Your task to perform on an android device: Open settings on Google Maps Image 0: 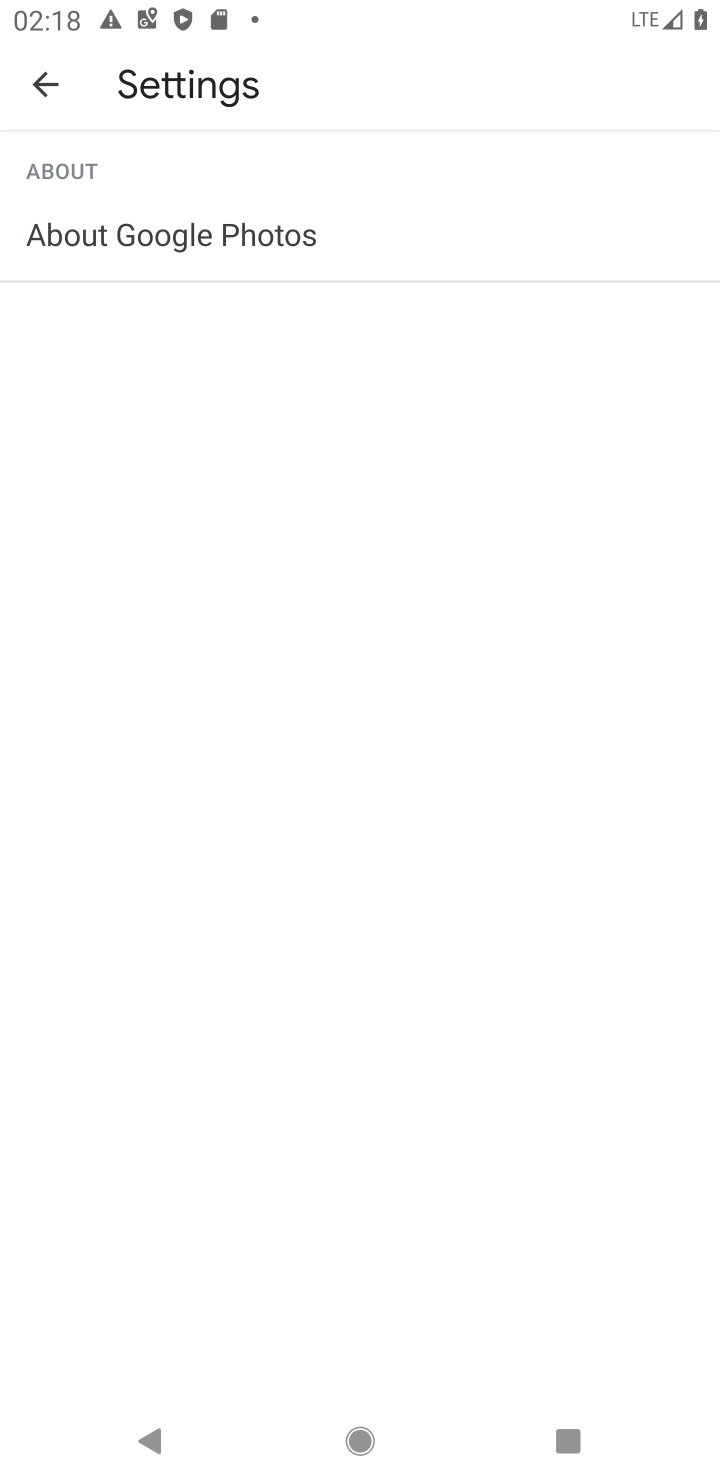
Step 0: click (354, 1437)
Your task to perform on an android device: Open settings on Google Maps Image 1: 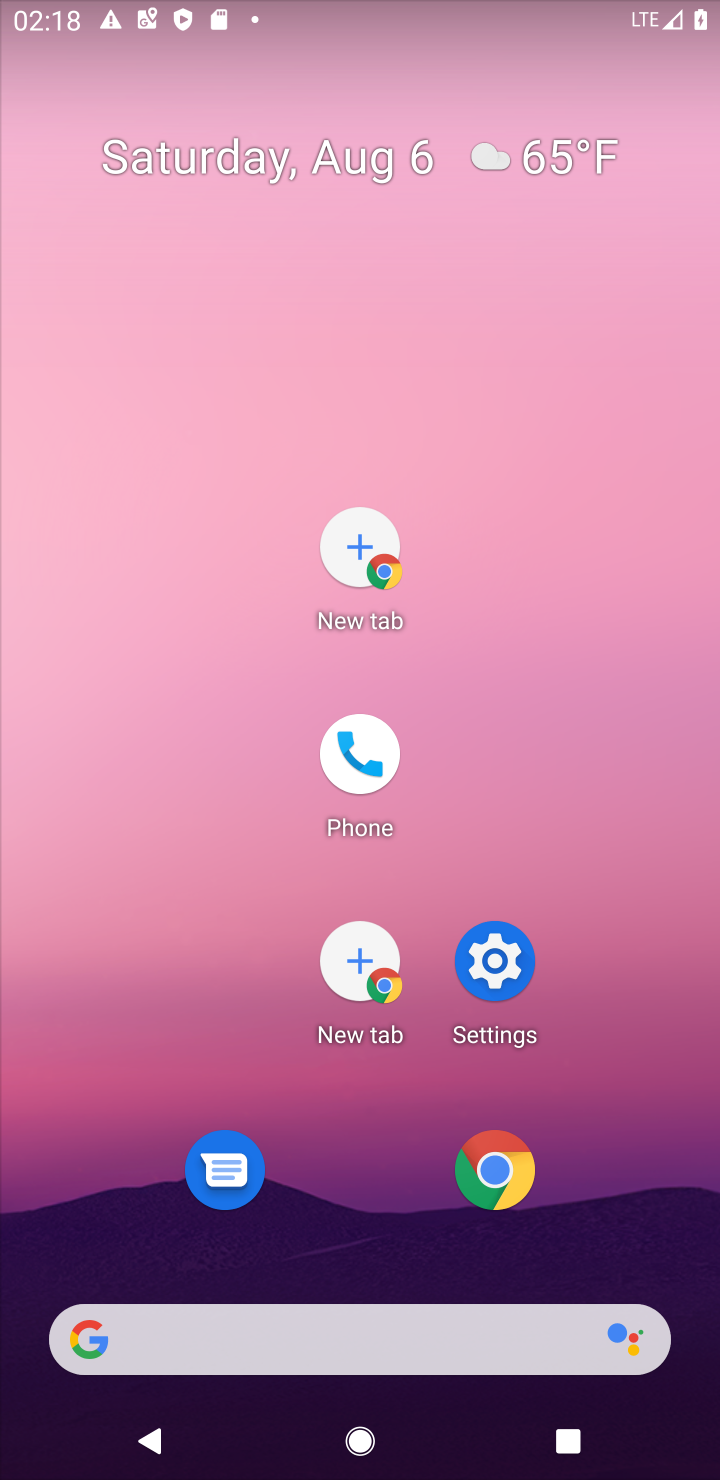
Step 1: drag from (383, 1274) to (361, 765)
Your task to perform on an android device: Open settings on Google Maps Image 2: 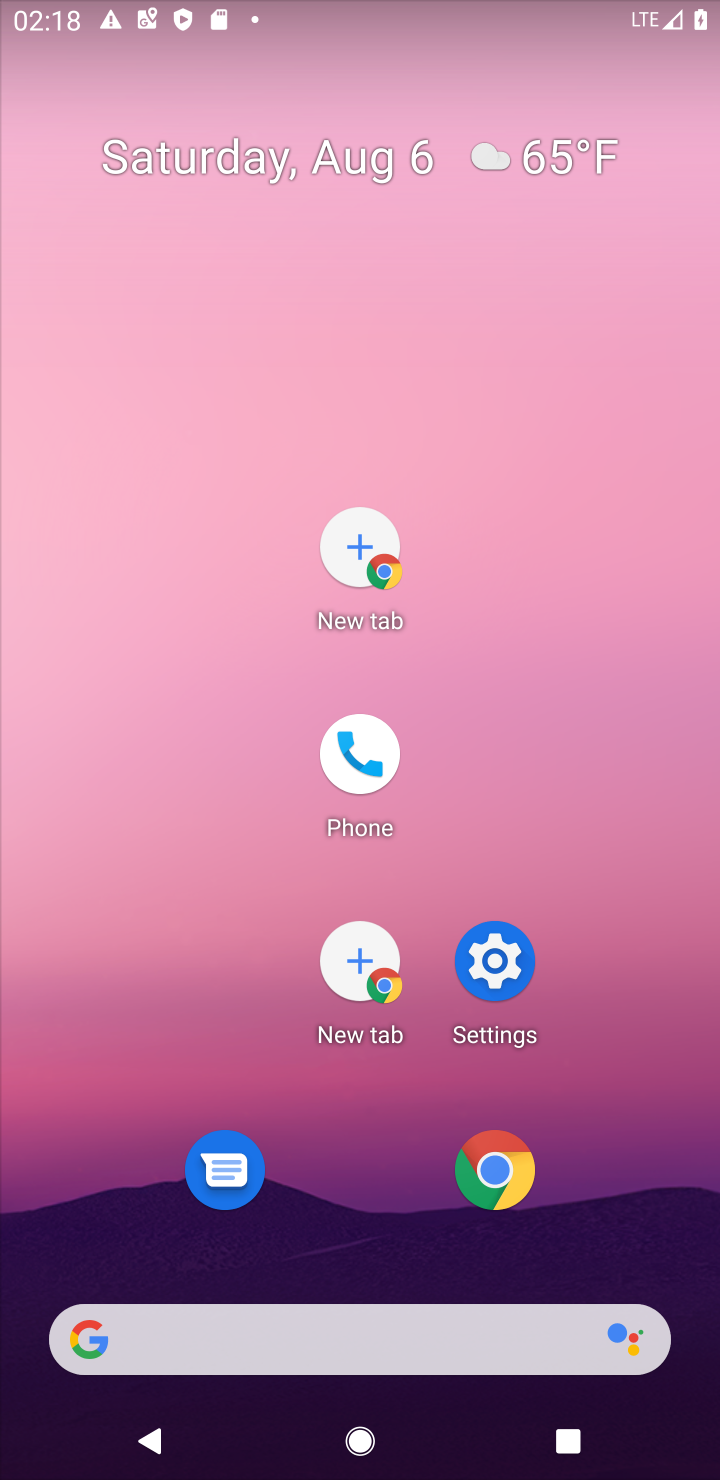
Step 2: drag from (383, 1255) to (467, 284)
Your task to perform on an android device: Open settings on Google Maps Image 3: 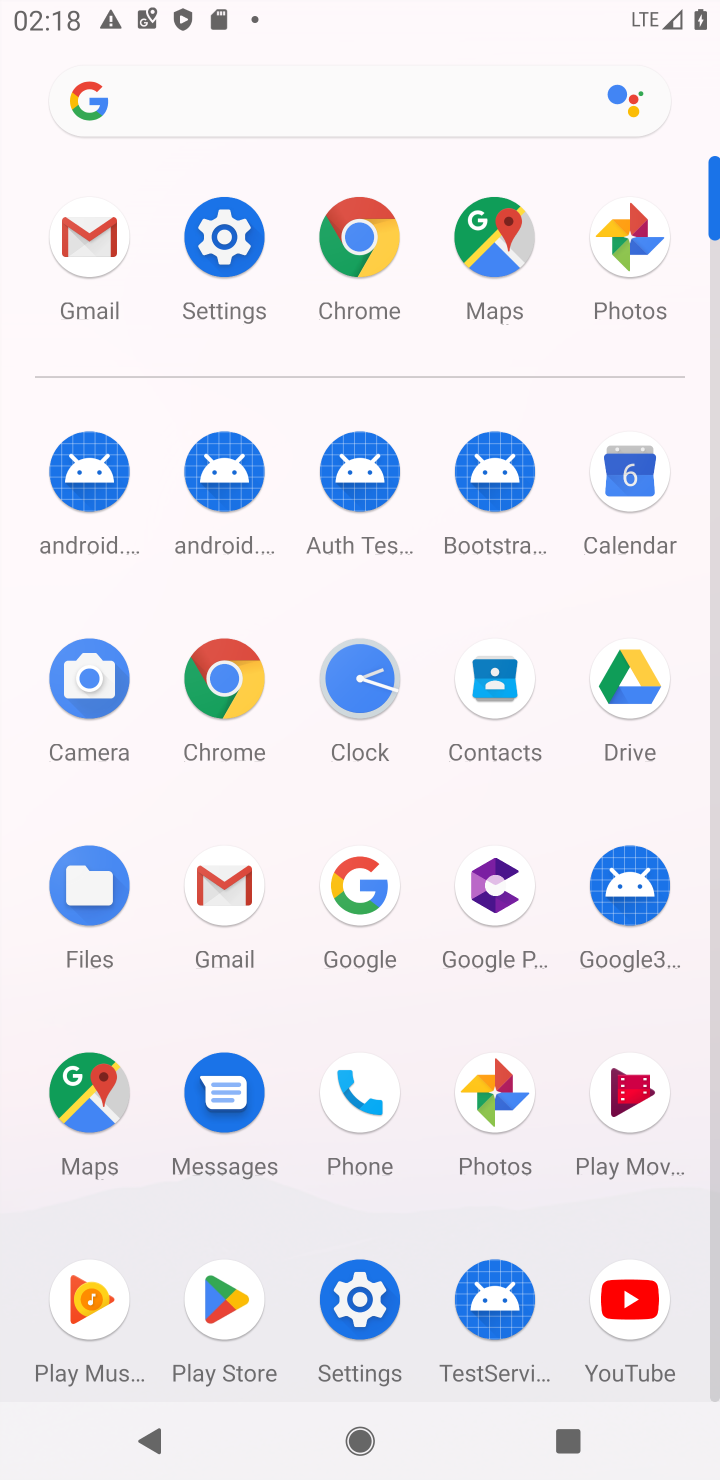
Step 3: click (84, 1129)
Your task to perform on an android device: Open settings on Google Maps Image 4: 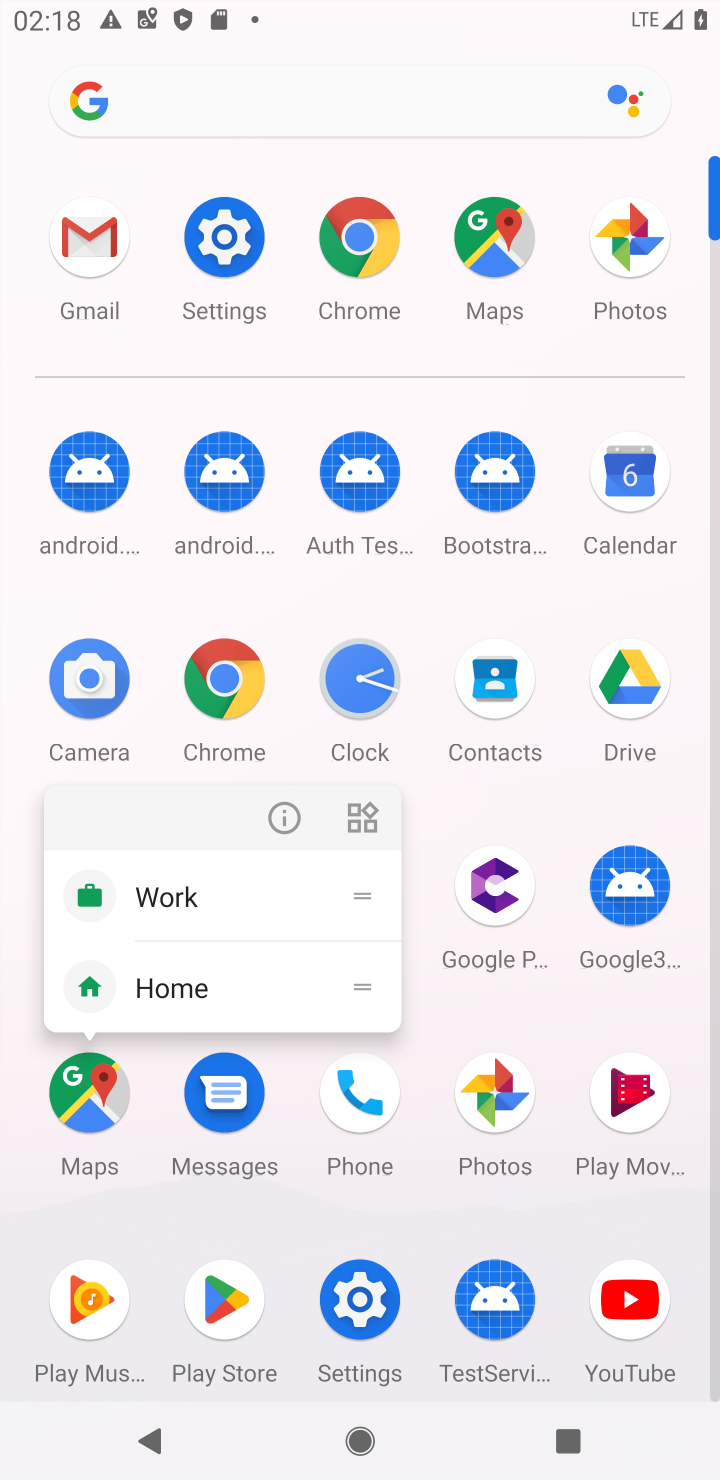
Step 4: click (639, 812)
Your task to perform on an android device: Open settings on Google Maps Image 5: 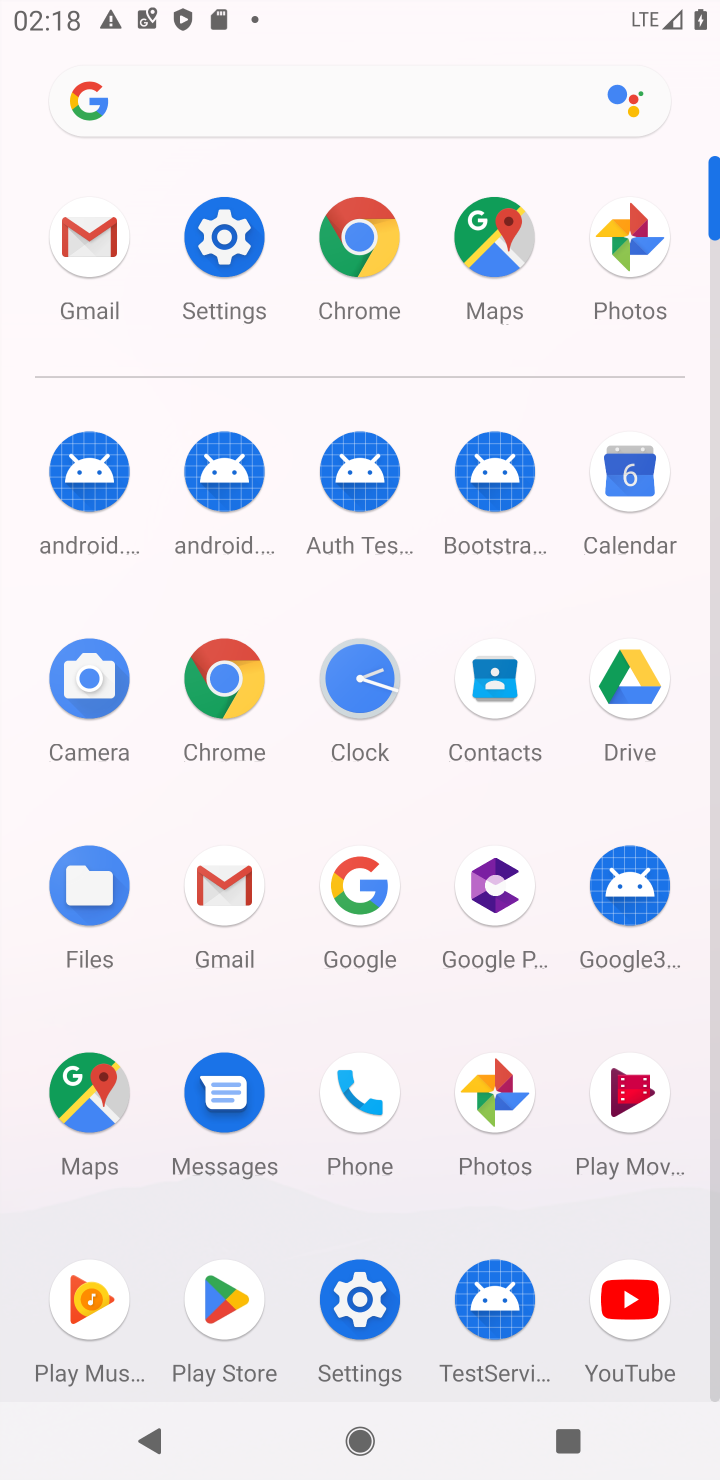
Step 5: click (98, 1115)
Your task to perform on an android device: Open settings on Google Maps Image 6: 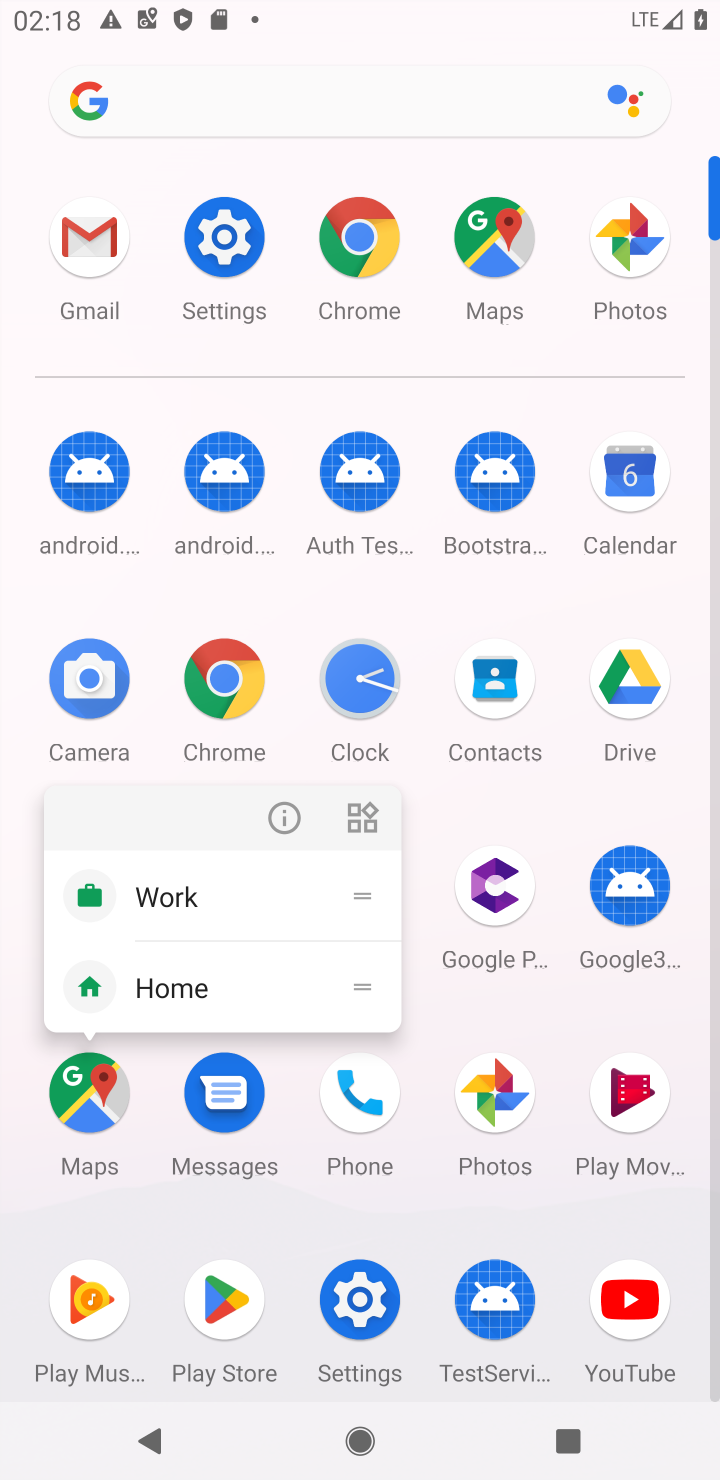
Step 6: click (98, 1115)
Your task to perform on an android device: Open settings on Google Maps Image 7: 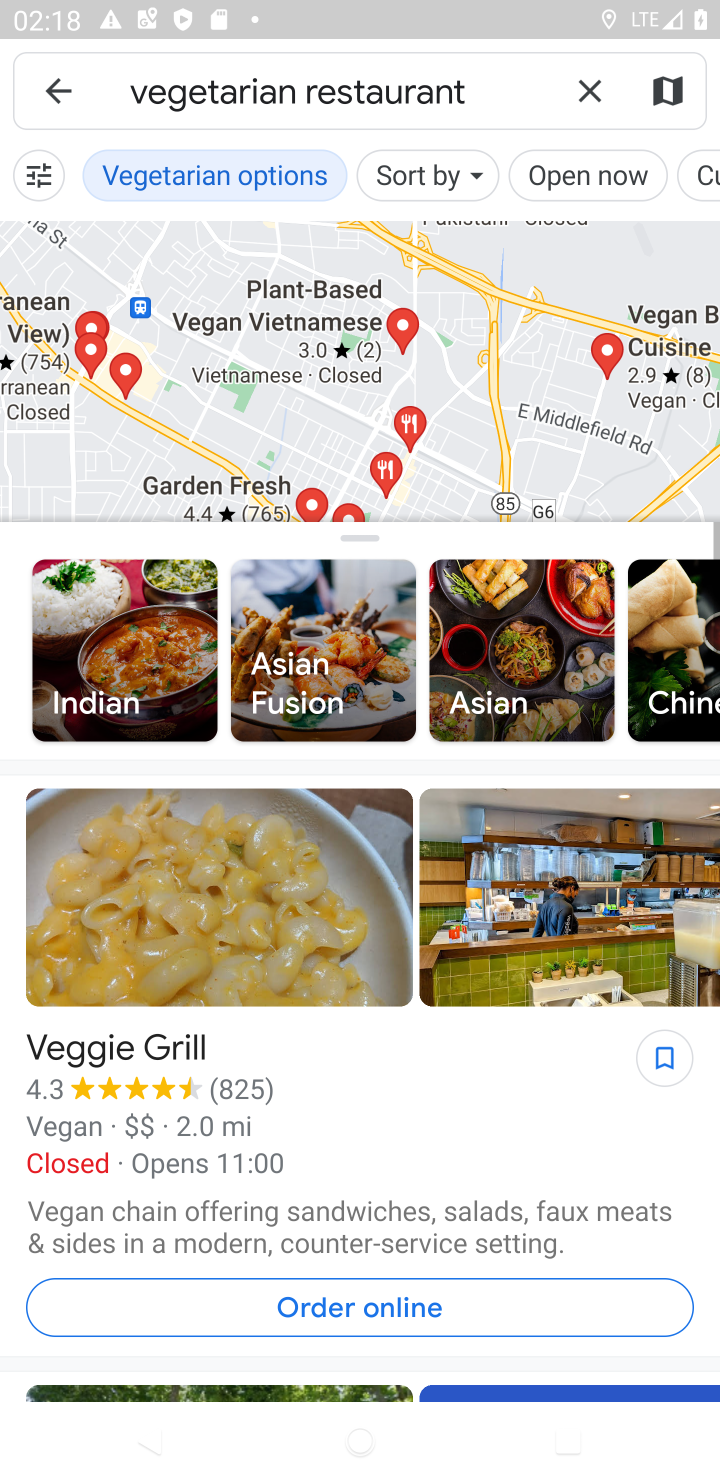
Step 7: click (50, 85)
Your task to perform on an android device: Open settings on Google Maps Image 8: 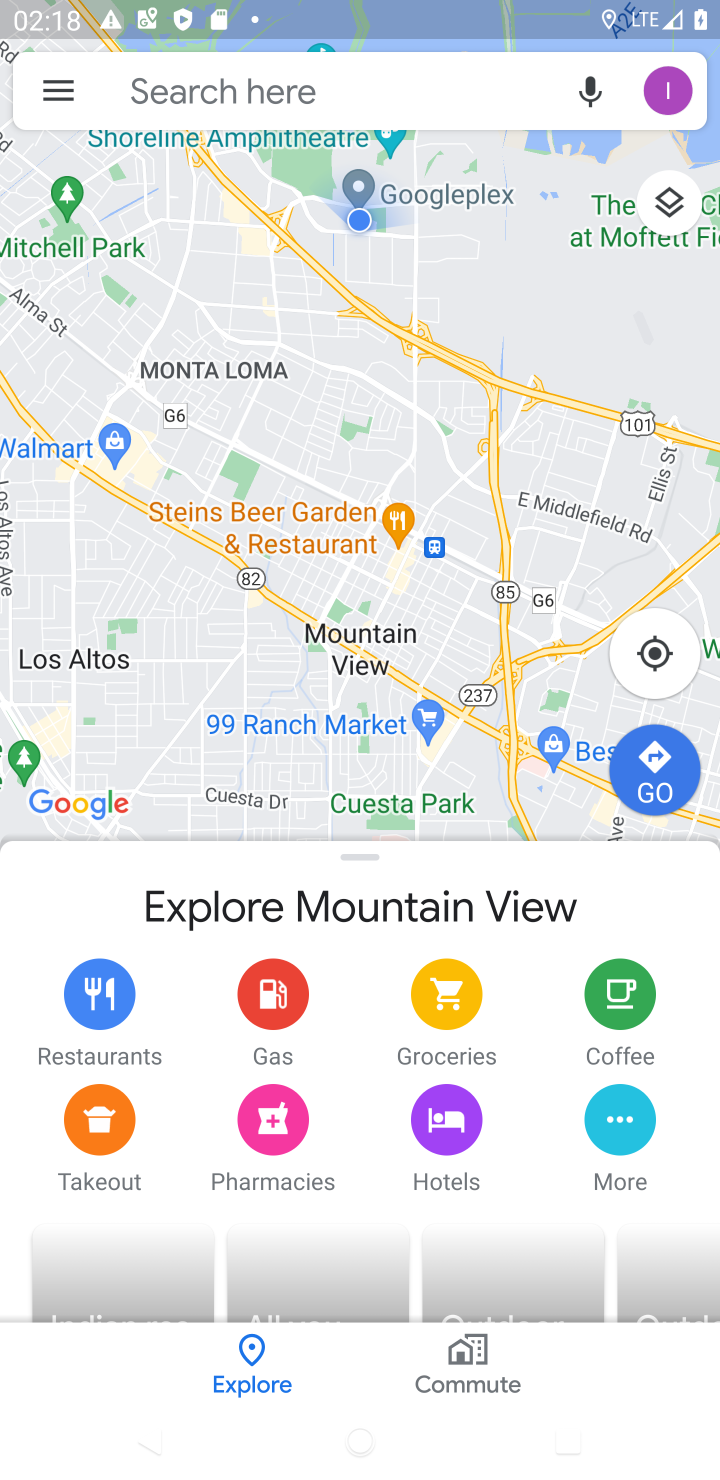
Step 8: click (50, 85)
Your task to perform on an android device: Open settings on Google Maps Image 9: 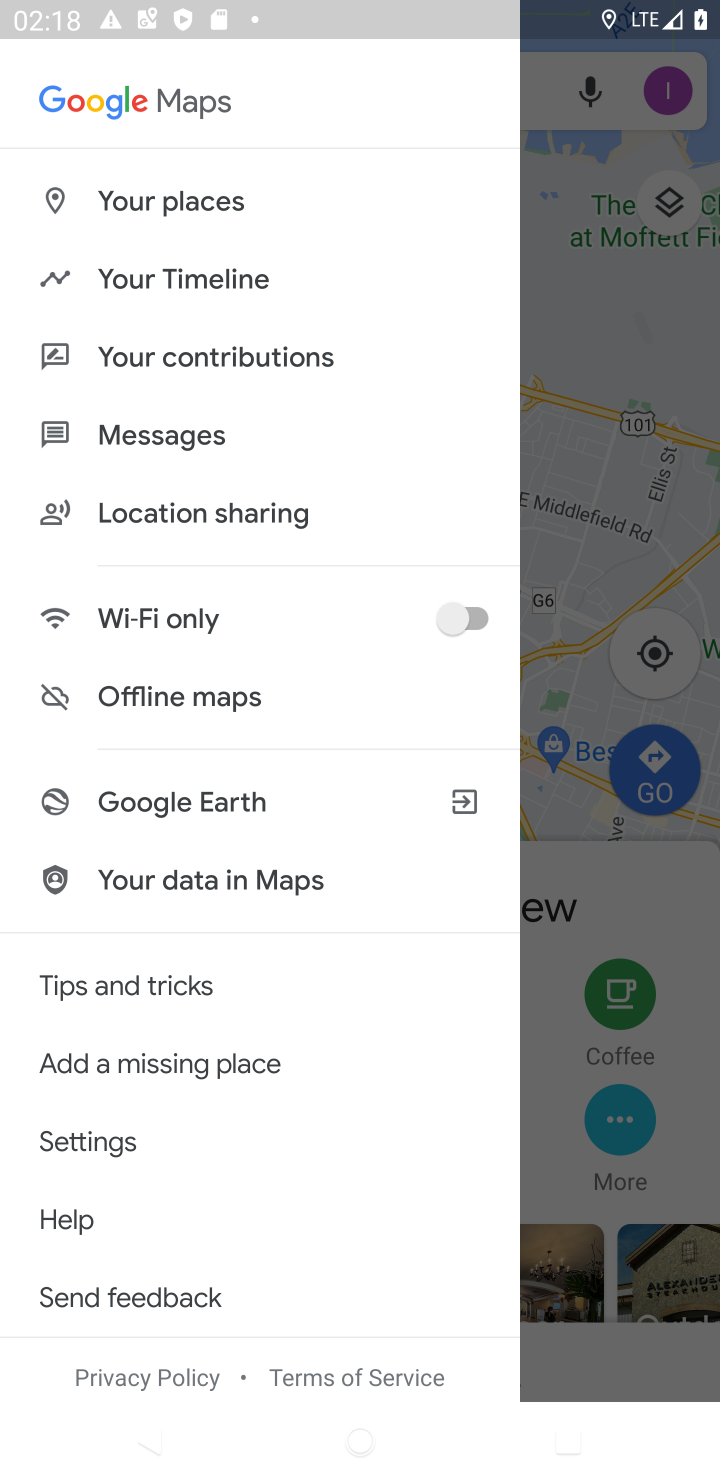
Step 9: click (99, 1137)
Your task to perform on an android device: Open settings on Google Maps Image 10: 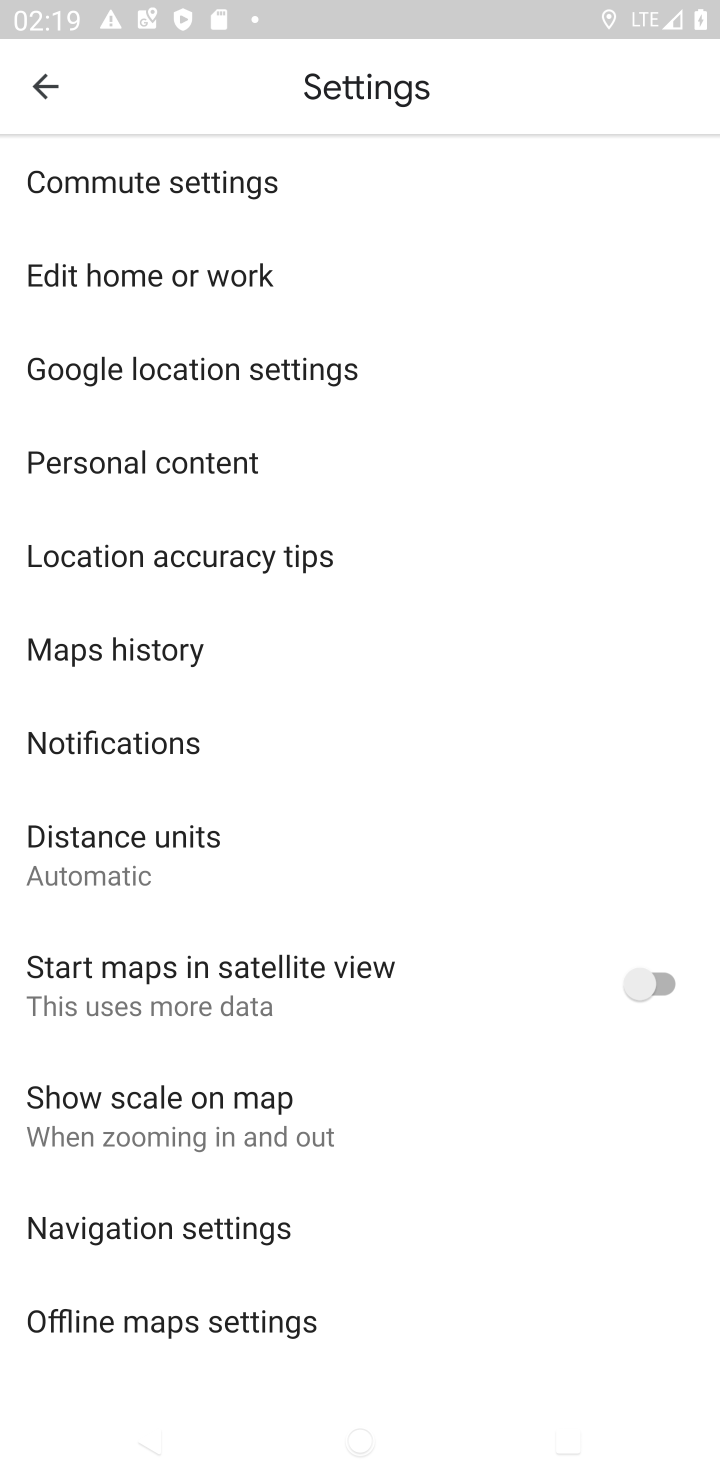
Step 10: task complete